Your task to perform on an android device: Open accessibility settings Image 0: 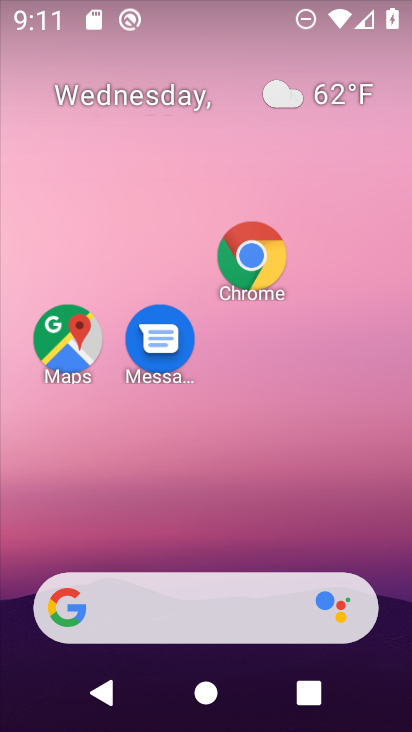
Step 0: drag from (223, 488) to (167, 68)
Your task to perform on an android device: Open accessibility settings Image 1: 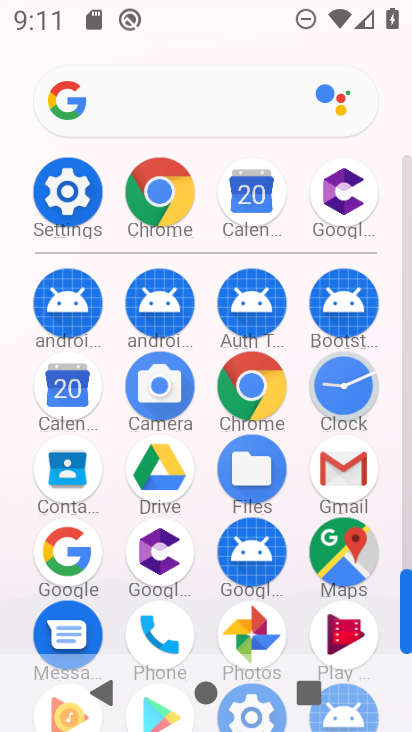
Step 1: click (65, 192)
Your task to perform on an android device: Open accessibility settings Image 2: 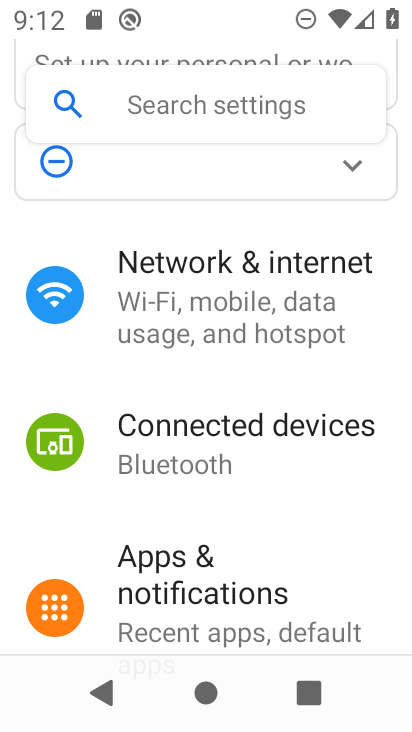
Step 2: drag from (262, 553) to (253, 75)
Your task to perform on an android device: Open accessibility settings Image 3: 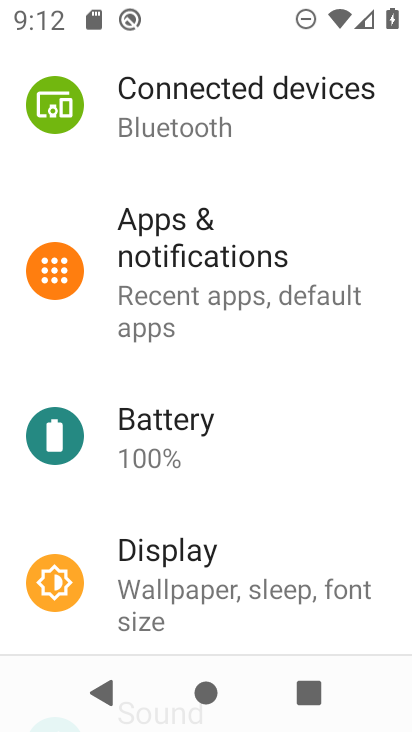
Step 3: drag from (231, 470) to (226, 46)
Your task to perform on an android device: Open accessibility settings Image 4: 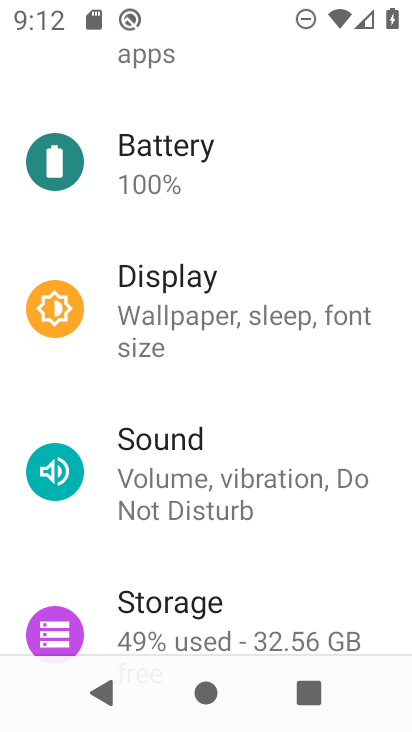
Step 4: drag from (249, 480) to (225, 68)
Your task to perform on an android device: Open accessibility settings Image 5: 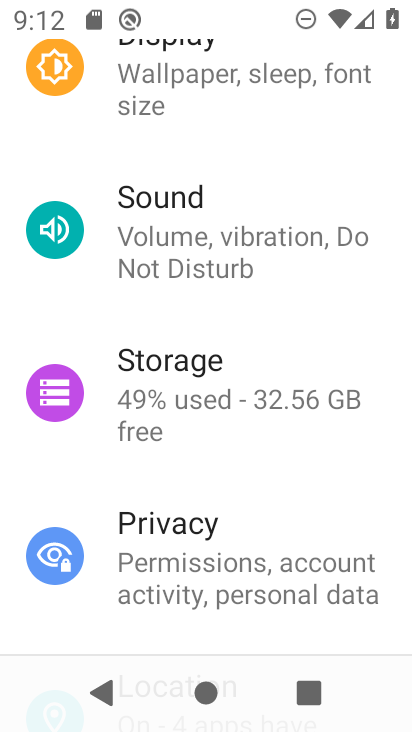
Step 5: drag from (231, 565) to (194, 106)
Your task to perform on an android device: Open accessibility settings Image 6: 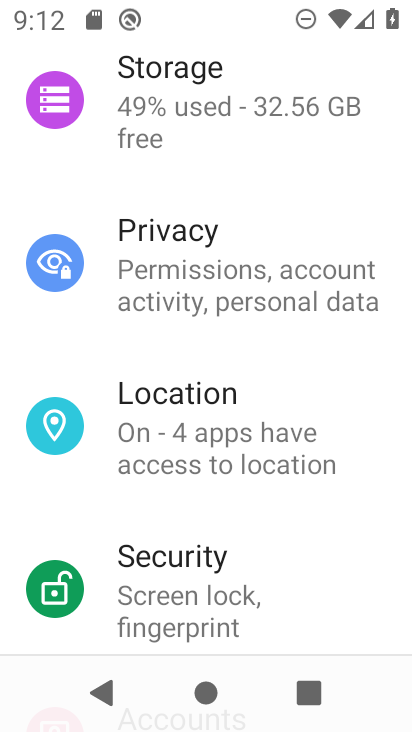
Step 6: drag from (211, 582) to (218, 131)
Your task to perform on an android device: Open accessibility settings Image 7: 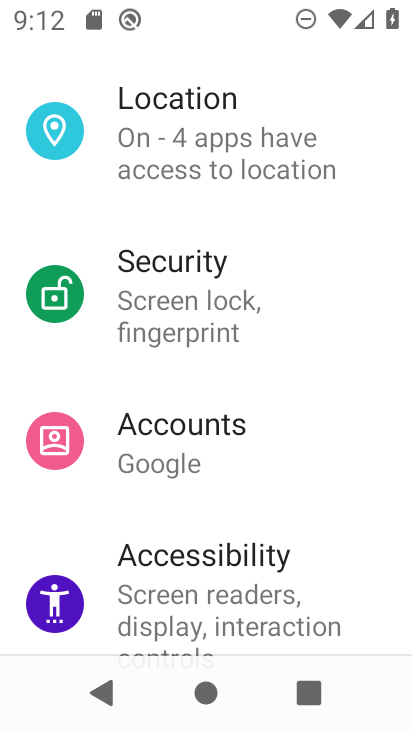
Step 7: click (200, 605)
Your task to perform on an android device: Open accessibility settings Image 8: 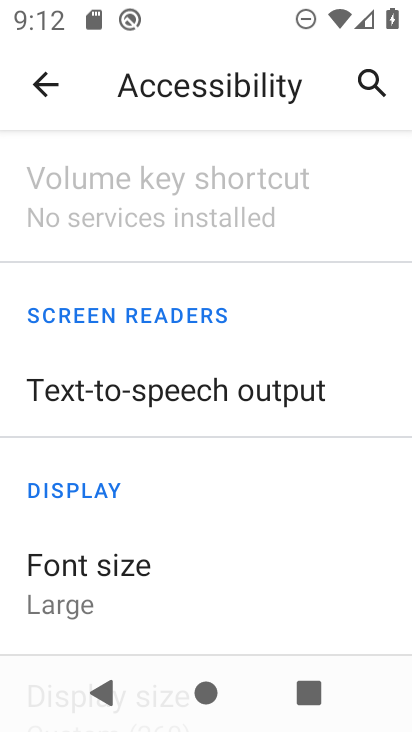
Step 8: task complete